Your task to perform on an android device: Open display settings Image 0: 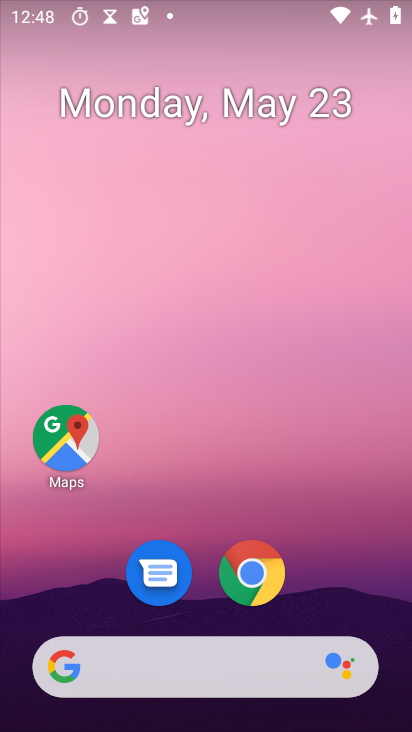
Step 0: press home button
Your task to perform on an android device: Open display settings Image 1: 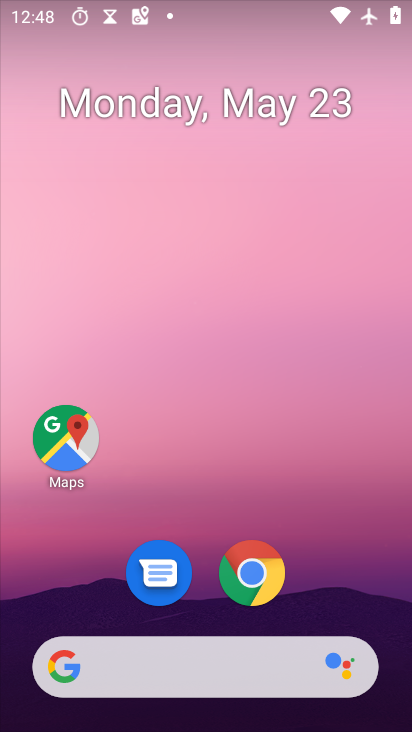
Step 1: drag from (190, 661) to (295, 100)
Your task to perform on an android device: Open display settings Image 2: 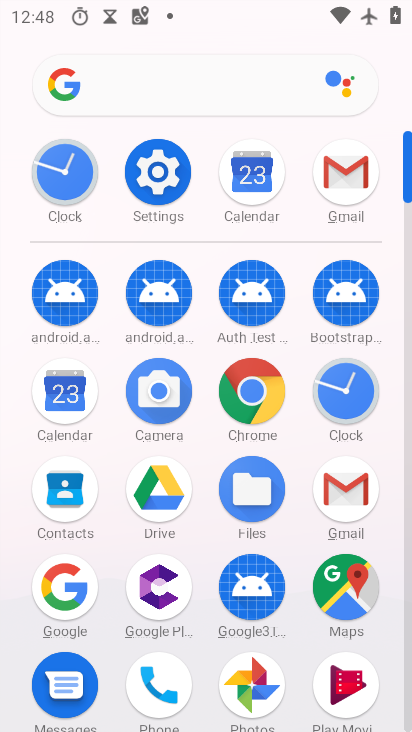
Step 2: click (156, 191)
Your task to perform on an android device: Open display settings Image 3: 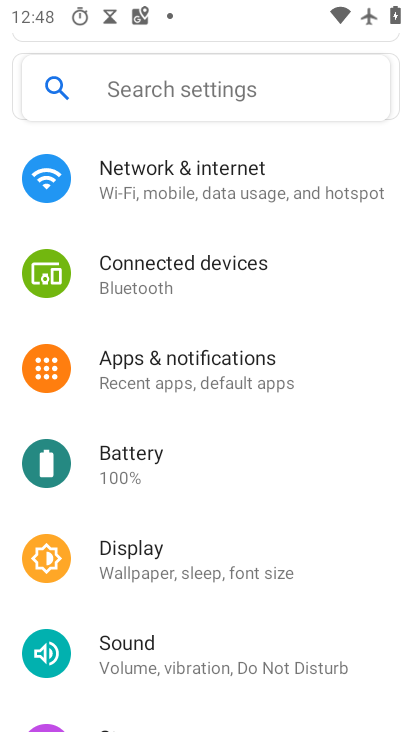
Step 3: click (125, 561)
Your task to perform on an android device: Open display settings Image 4: 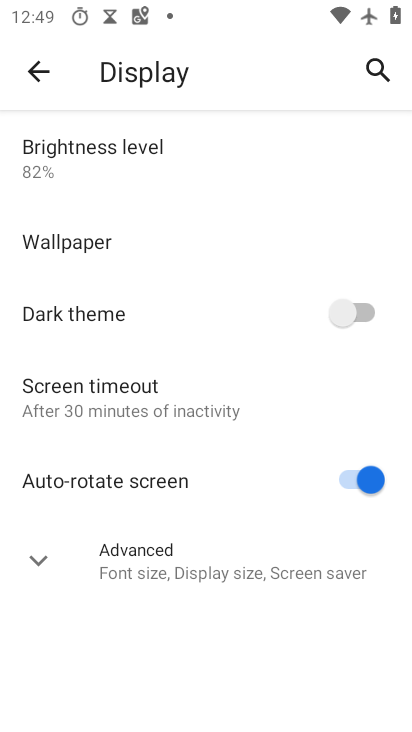
Step 4: task complete